Your task to perform on an android device: turn on the 12-hour format for clock Image 0: 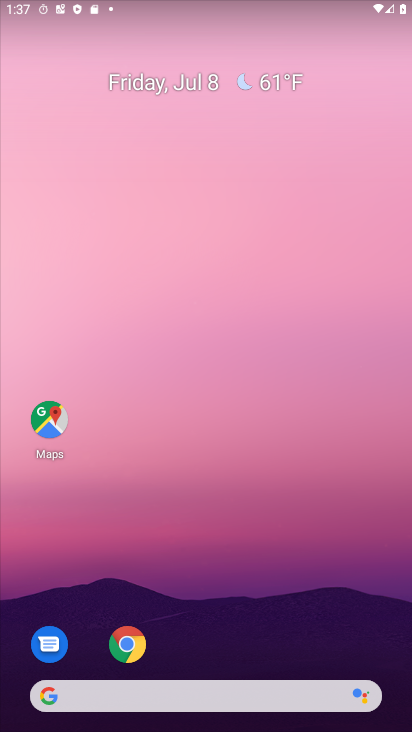
Step 0: drag from (209, 450) to (209, 215)
Your task to perform on an android device: turn on the 12-hour format for clock Image 1: 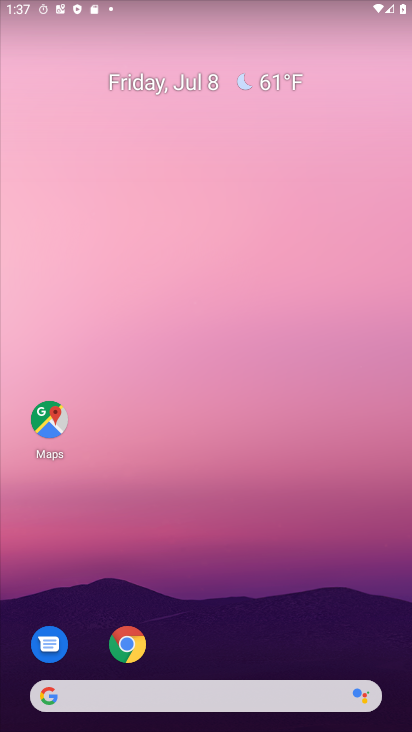
Step 1: drag from (194, 645) to (164, 21)
Your task to perform on an android device: turn on the 12-hour format for clock Image 2: 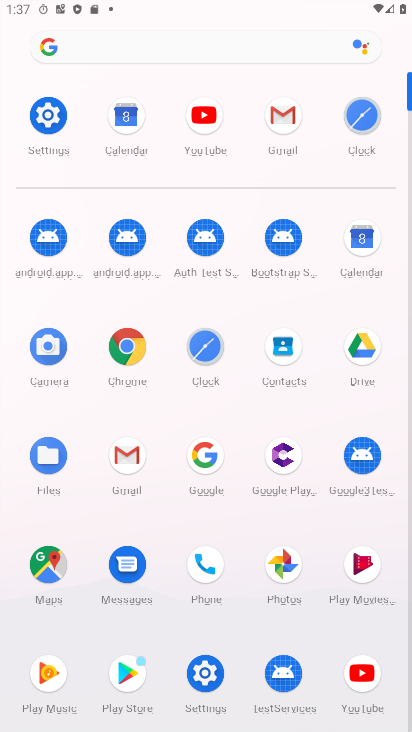
Step 2: click (196, 356)
Your task to perform on an android device: turn on the 12-hour format for clock Image 3: 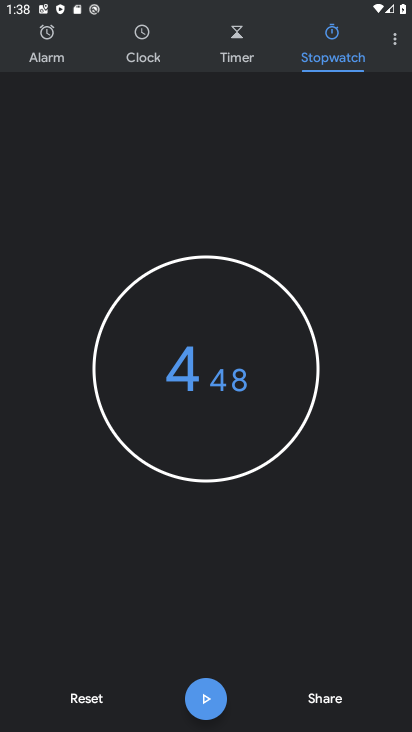
Step 3: click (133, 34)
Your task to perform on an android device: turn on the 12-hour format for clock Image 4: 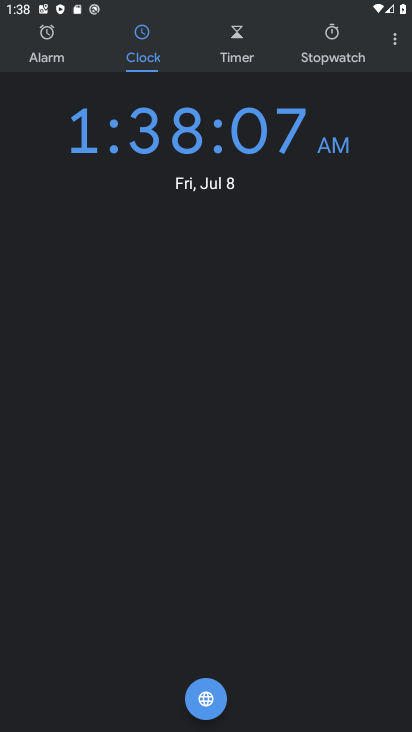
Step 4: click (396, 40)
Your task to perform on an android device: turn on the 12-hour format for clock Image 5: 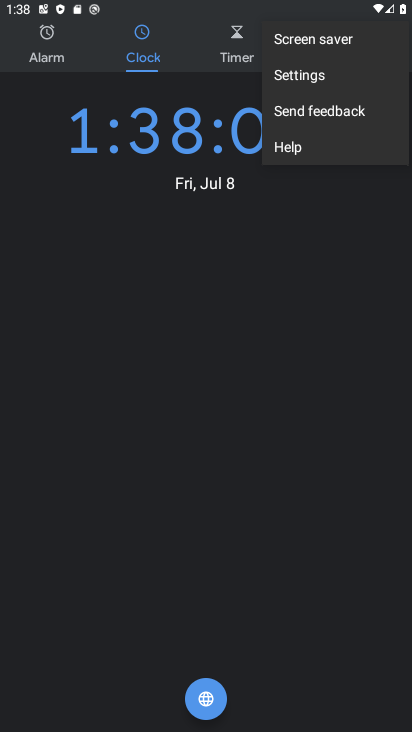
Step 5: click (318, 88)
Your task to perform on an android device: turn on the 12-hour format for clock Image 6: 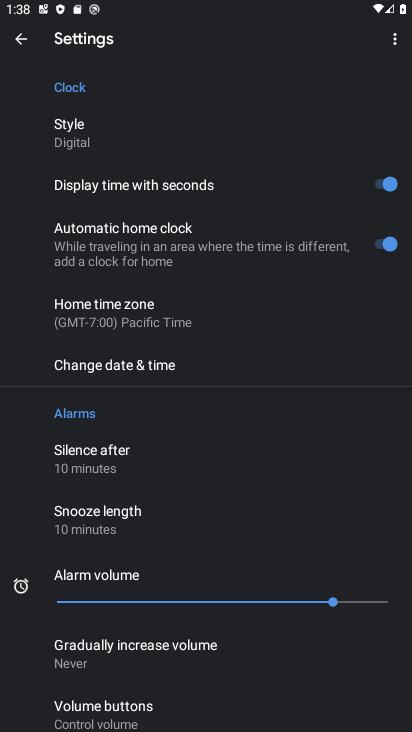
Step 6: click (172, 369)
Your task to perform on an android device: turn on the 12-hour format for clock Image 7: 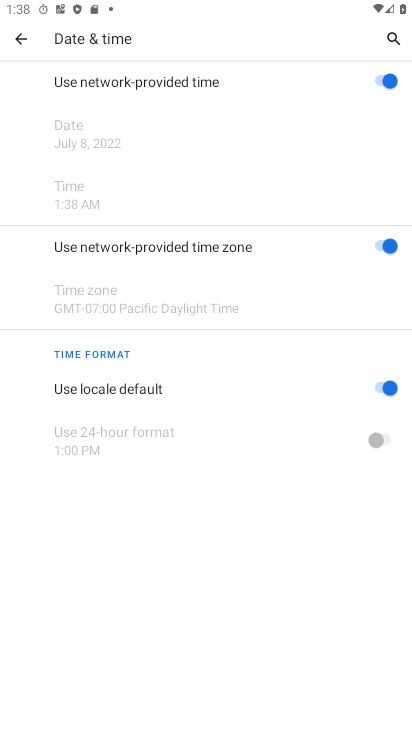
Step 7: task complete